Your task to perform on an android device: Go to eBay Image 0: 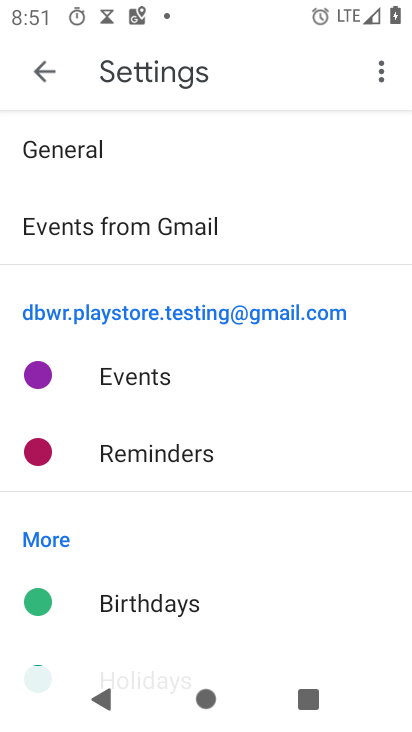
Step 0: press home button
Your task to perform on an android device: Go to eBay Image 1: 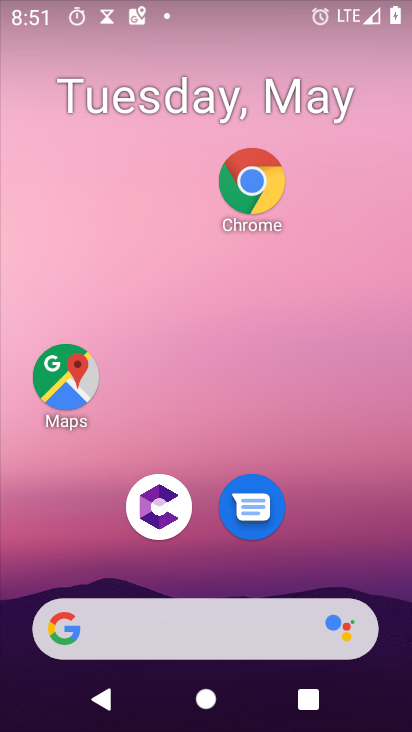
Step 1: click (253, 190)
Your task to perform on an android device: Go to eBay Image 2: 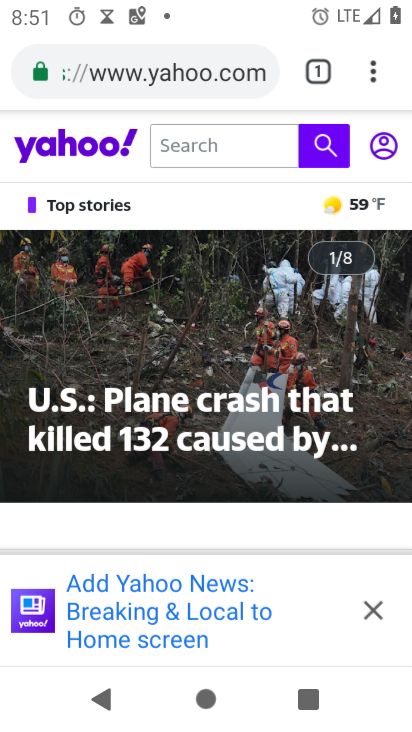
Step 2: click (164, 87)
Your task to perform on an android device: Go to eBay Image 3: 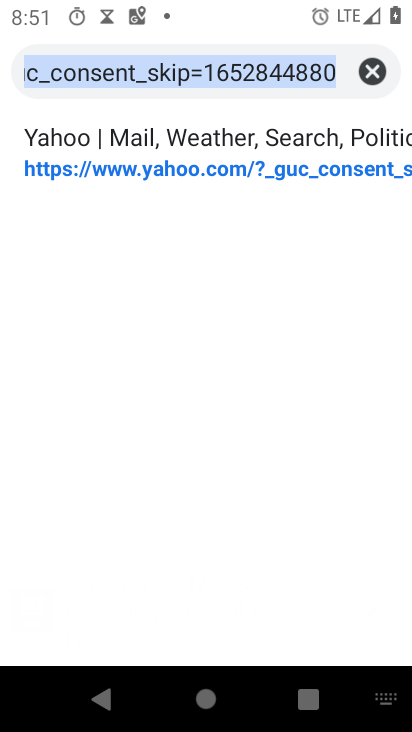
Step 3: type "ebay"
Your task to perform on an android device: Go to eBay Image 4: 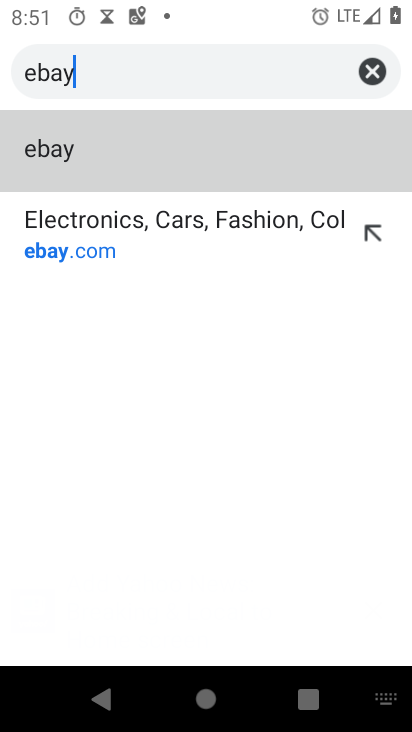
Step 4: click (220, 136)
Your task to perform on an android device: Go to eBay Image 5: 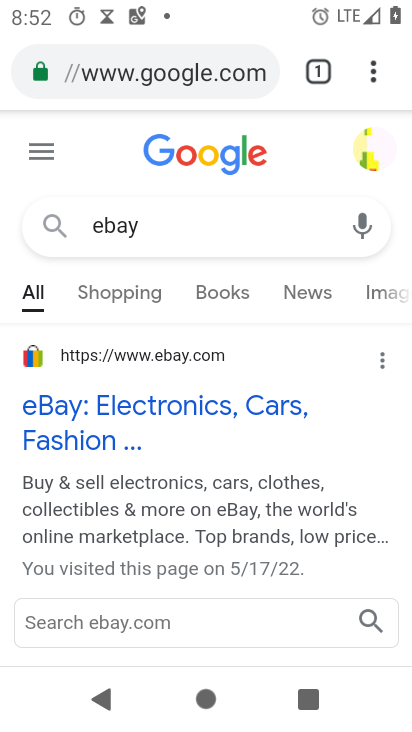
Step 5: click (43, 404)
Your task to perform on an android device: Go to eBay Image 6: 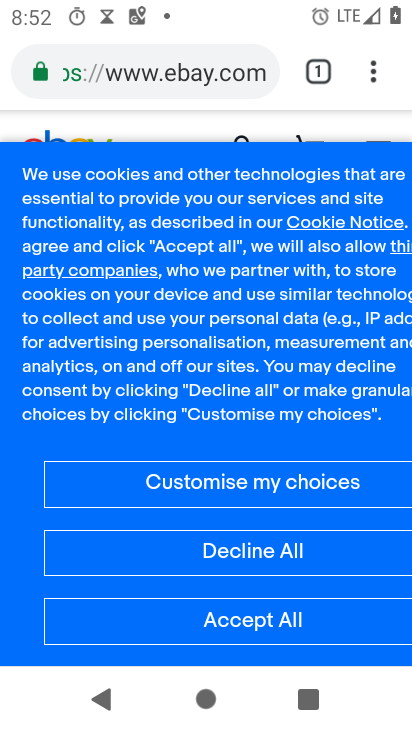
Step 6: task complete